Your task to perform on an android device: What is the news today? Image 0: 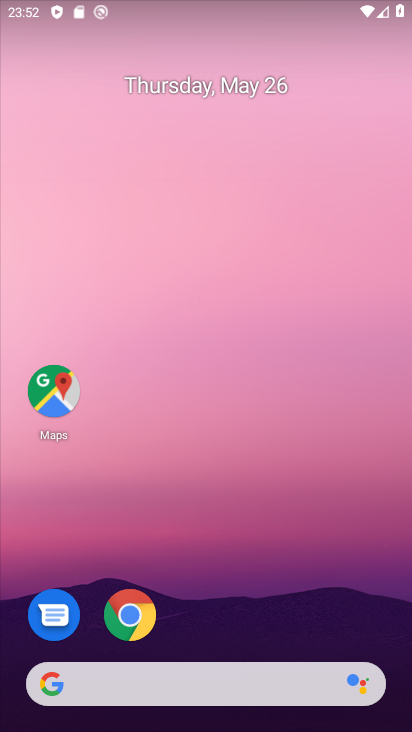
Step 0: click (154, 618)
Your task to perform on an android device: What is the news today? Image 1: 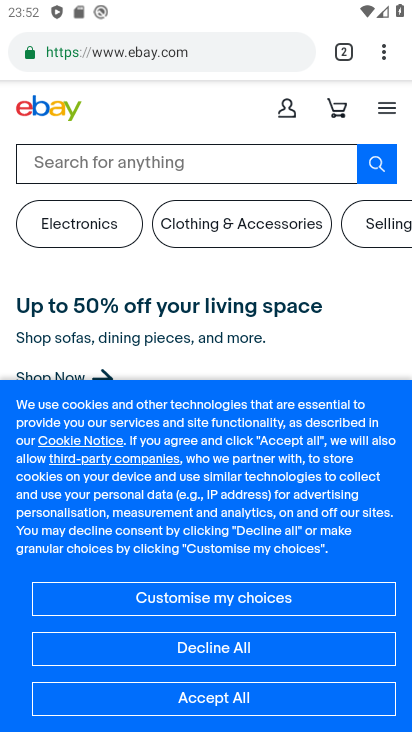
Step 1: click (137, 171)
Your task to perform on an android device: What is the news today? Image 2: 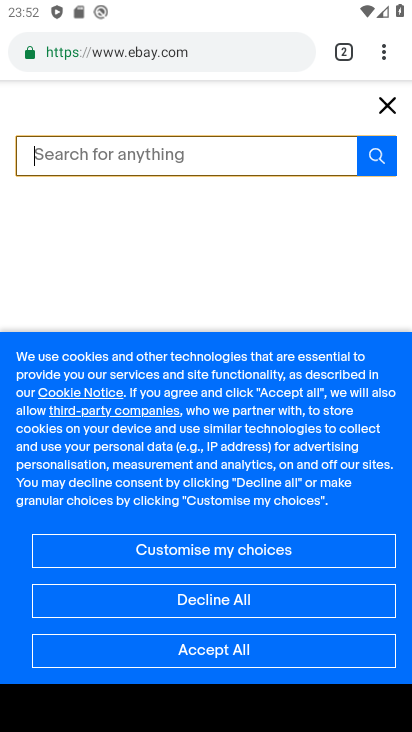
Step 2: click (94, 50)
Your task to perform on an android device: What is the news today? Image 3: 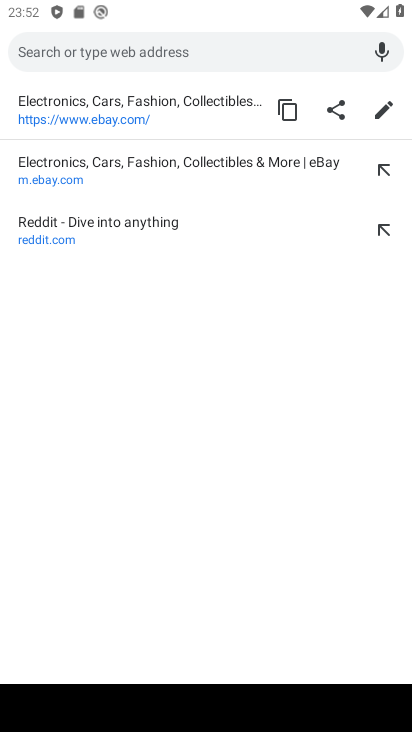
Step 3: type "What is the news today?"
Your task to perform on an android device: What is the news today? Image 4: 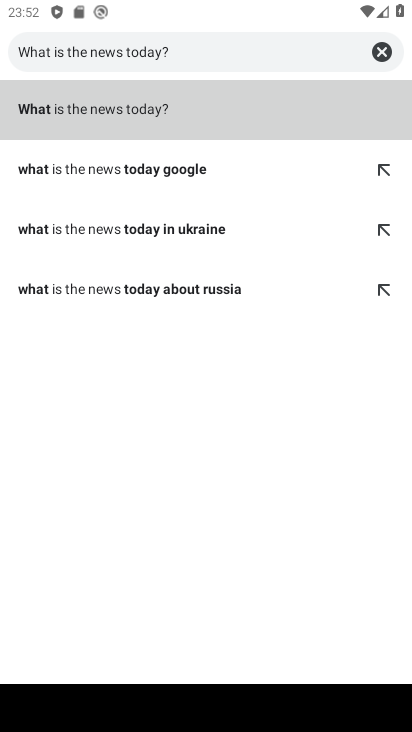
Step 4: click (135, 118)
Your task to perform on an android device: What is the news today? Image 5: 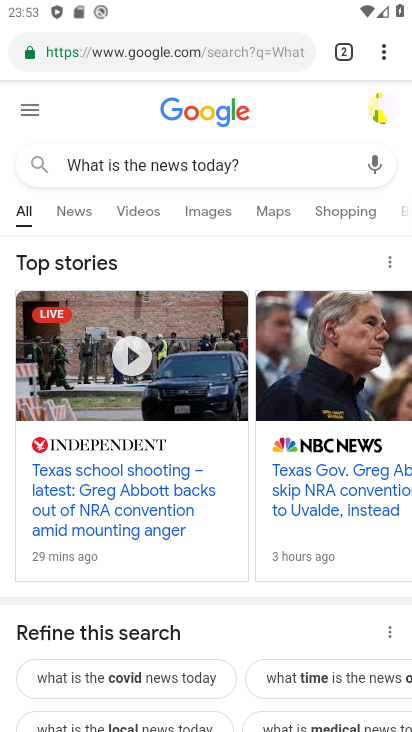
Step 5: task complete